Your task to perform on an android device: toggle improve location accuracy Image 0: 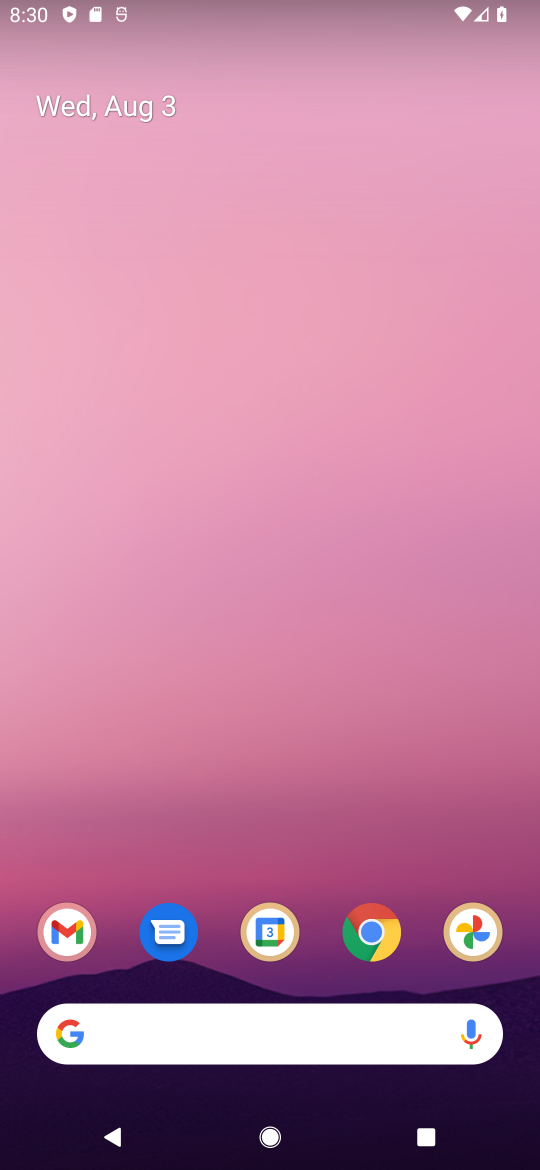
Step 0: drag from (189, 919) to (265, 202)
Your task to perform on an android device: toggle improve location accuracy Image 1: 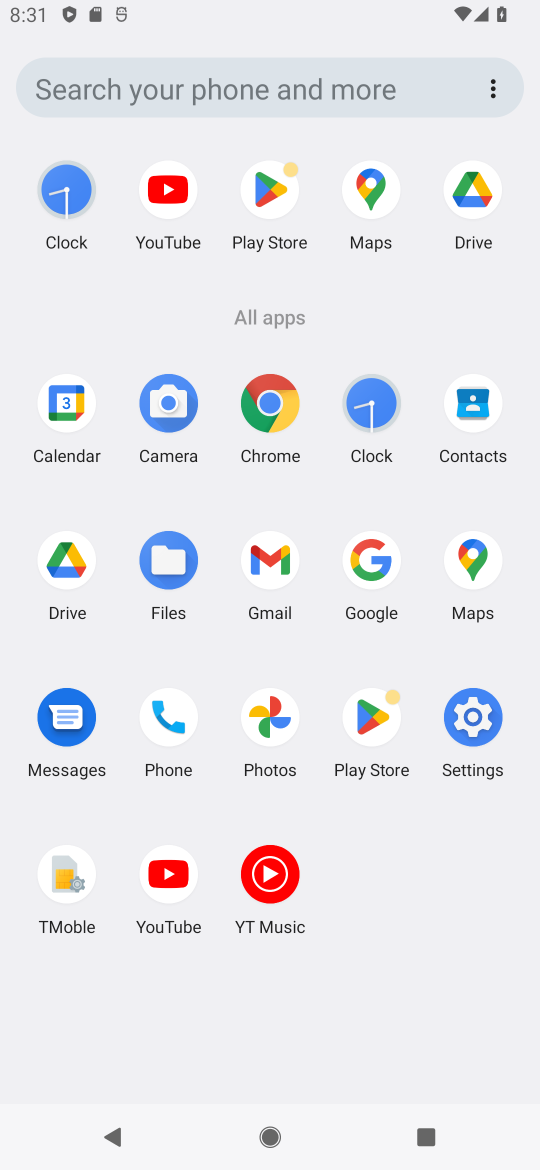
Step 1: click (469, 725)
Your task to perform on an android device: toggle improve location accuracy Image 2: 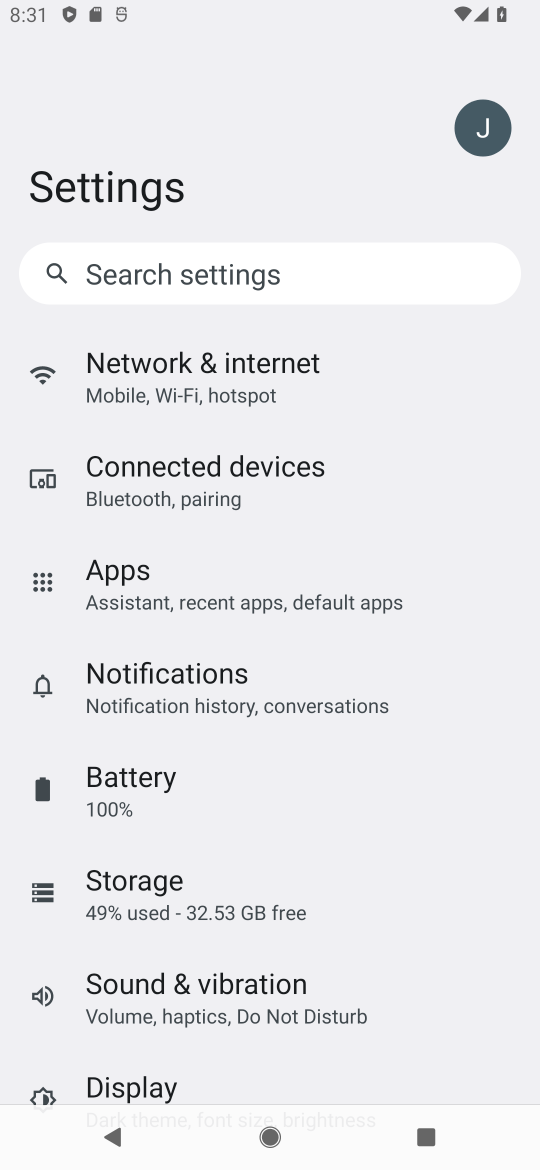
Step 2: drag from (159, 1013) to (135, 451)
Your task to perform on an android device: toggle improve location accuracy Image 3: 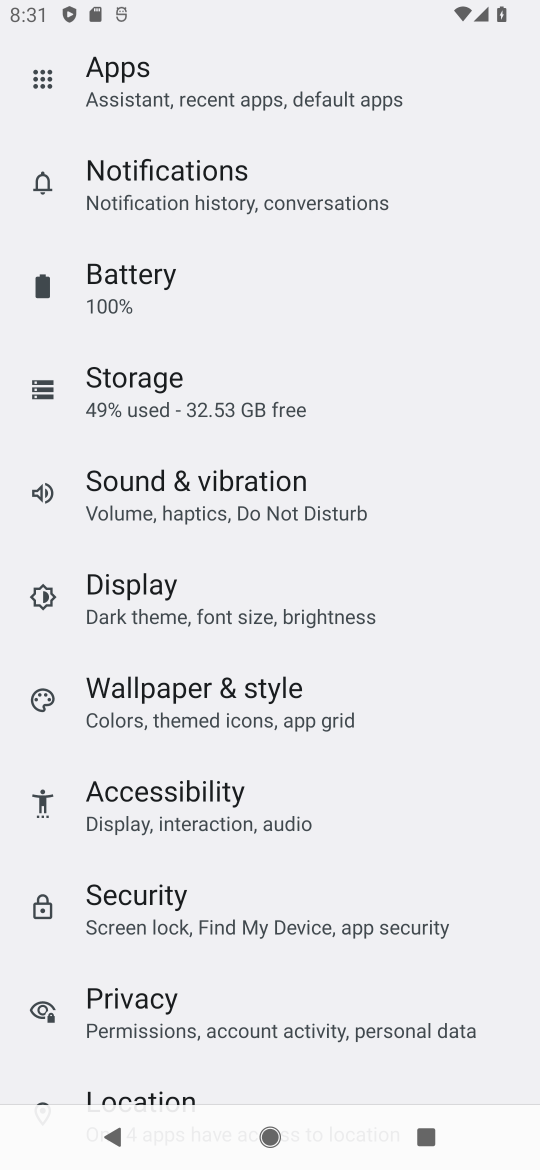
Step 3: drag from (146, 1016) to (137, 487)
Your task to perform on an android device: toggle improve location accuracy Image 4: 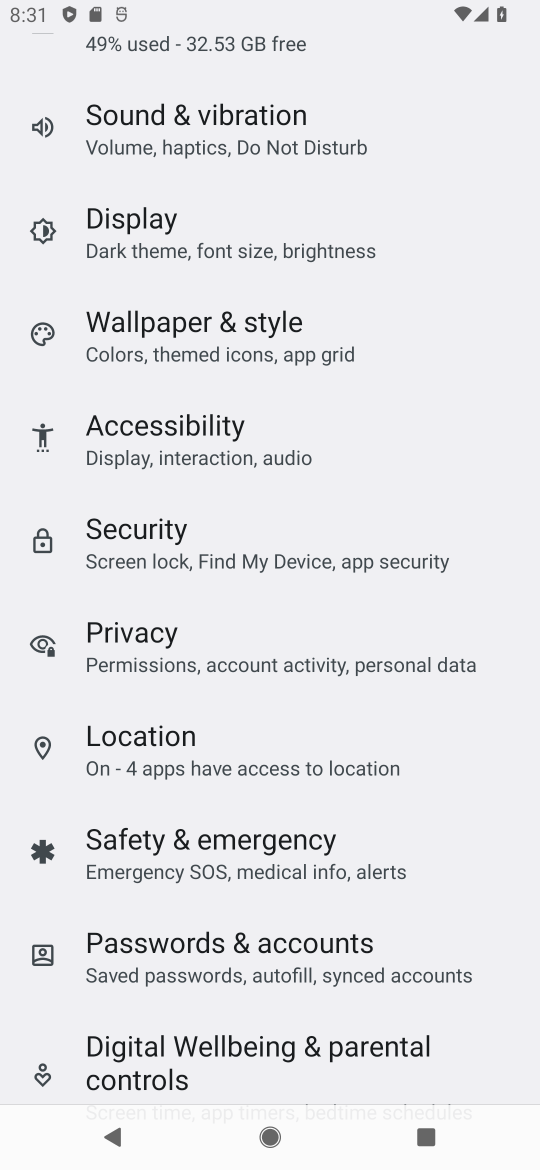
Step 4: click (147, 750)
Your task to perform on an android device: toggle improve location accuracy Image 5: 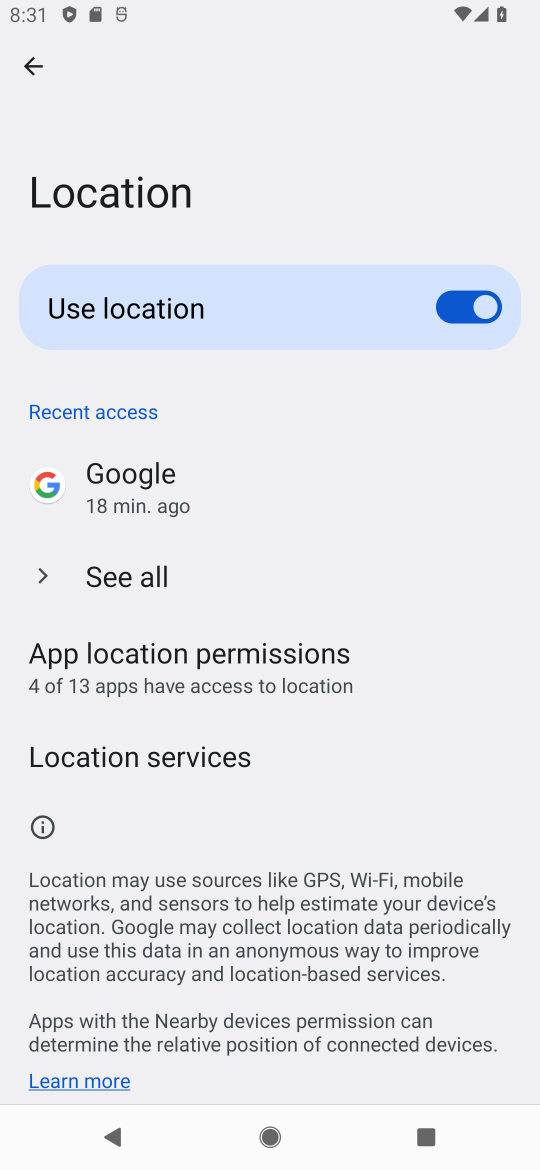
Step 5: click (90, 760)
Your task to perform on an android device: toggle improve location accuracy Image 6: 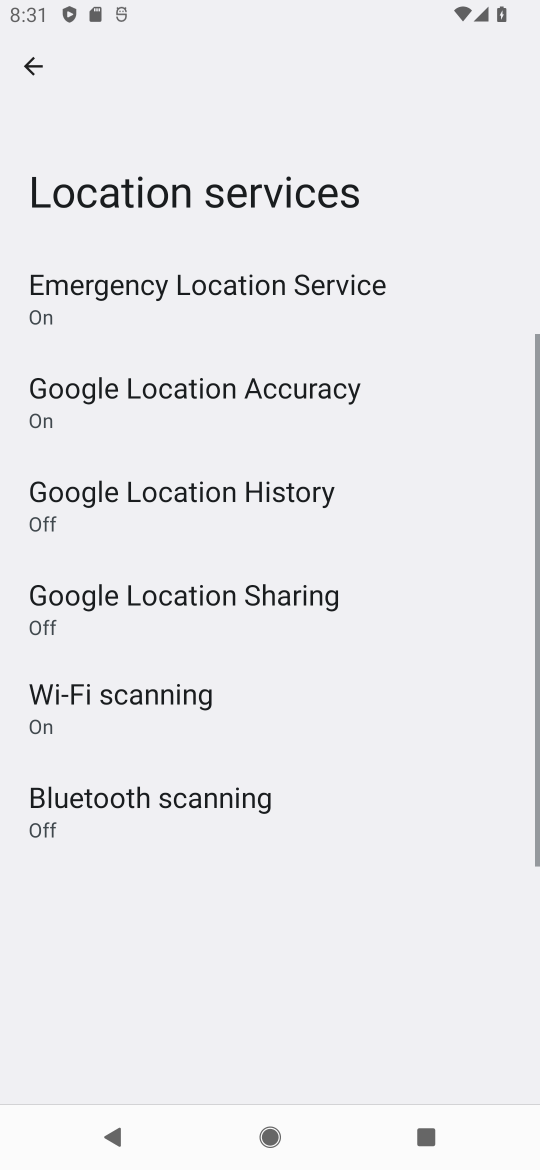
Step 6: click (192, 408)
Your task to perform on an android device: toggle improve location accuracy Image 7: 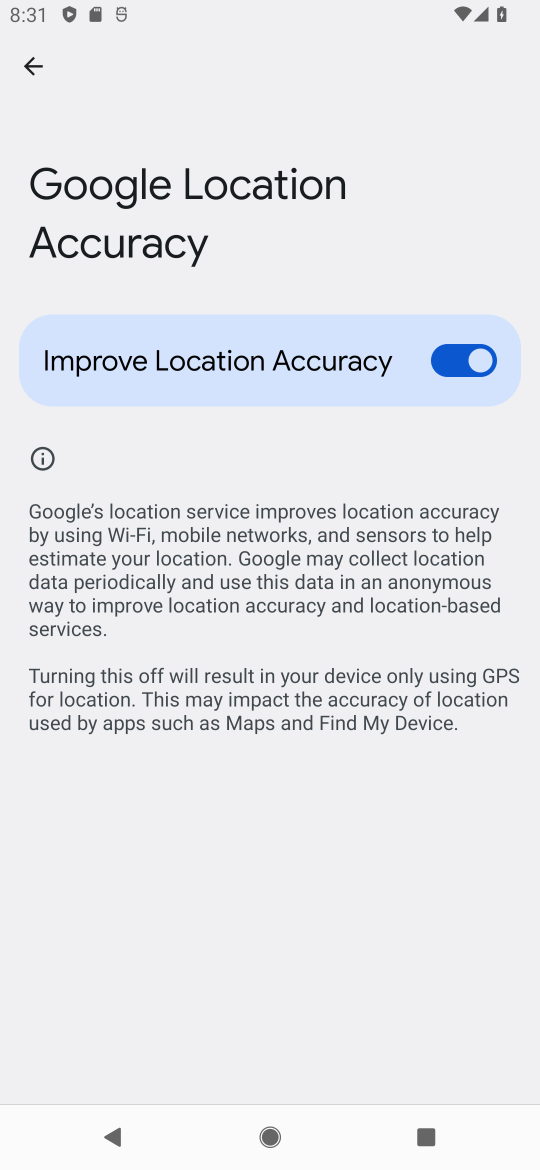
Step 7: click (454, 357)
Your task to perform on an android device: toggle improve location accuracy Image 8: 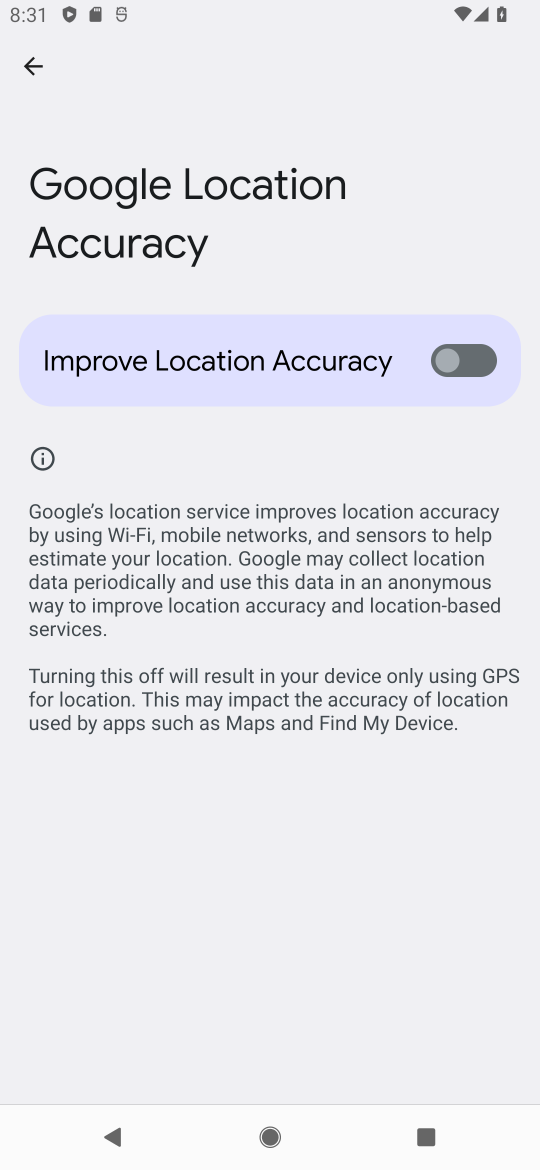
Step 8: task complete